Your task to perform on an android device: turn on location history Image 0: 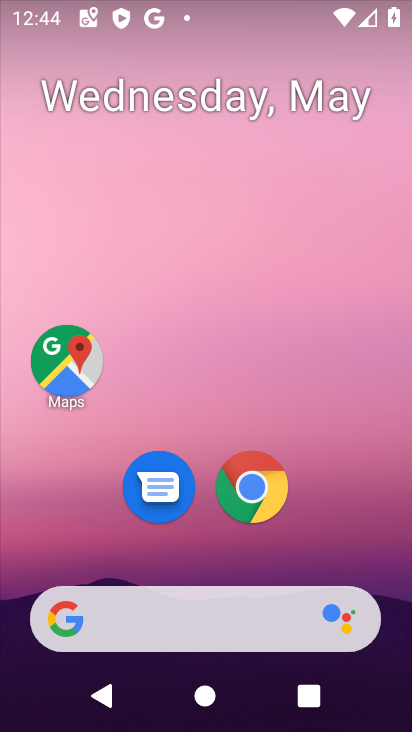
Step 0: drag from (195, 563) to (258, 93)
Your task to perform on an android device: turn on location history Image 1: 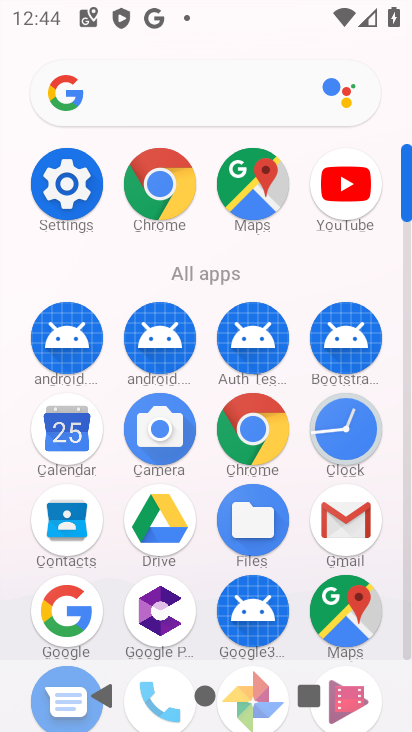
Step 1: click (91, 195)
Your task to perform on an android device: turn on location history Image 2: 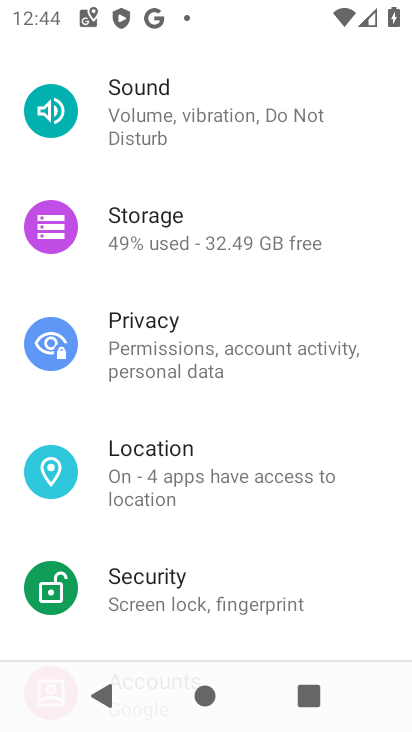
Step 2: click (140, 456)
Your task to perform on an android device: turn on location history Image 3: 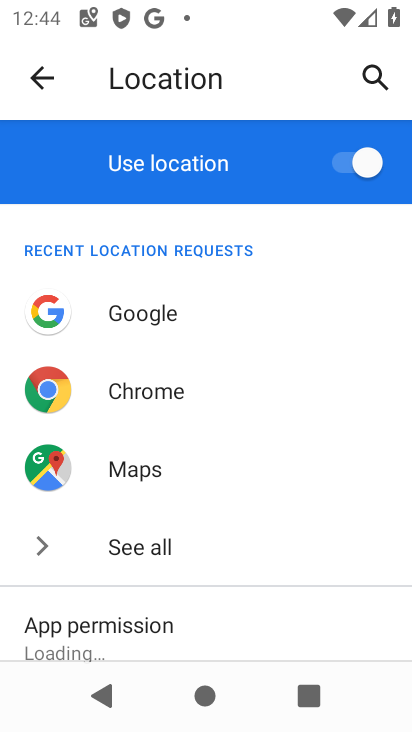
Step 3: drag from (171, 558) to (196, 345)
Your task to perform on an android device: turn on location history Image 4: 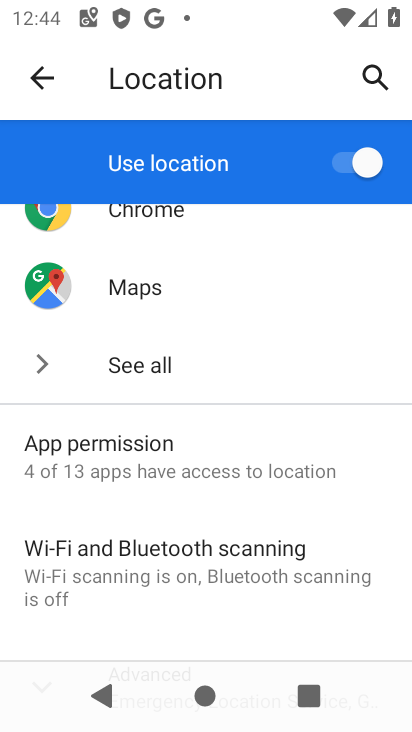
Step 4: drag from (172, 597) to (228, 324)
Your task to perform on an android device: turn on location history Image 5: 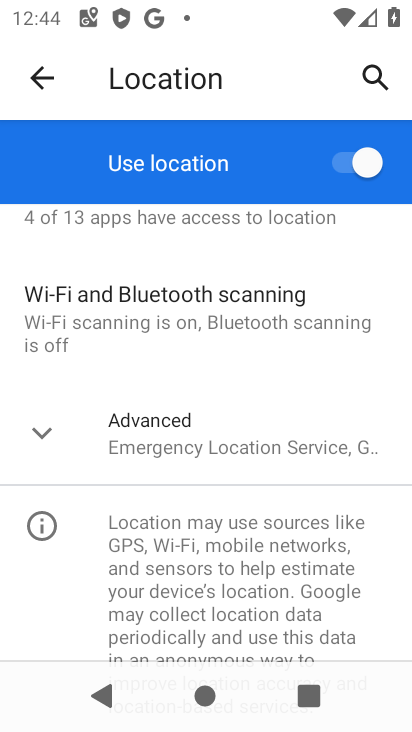
Step 5: click (187, 430)
Your task to perform on an android device: turn on location history Image 6: 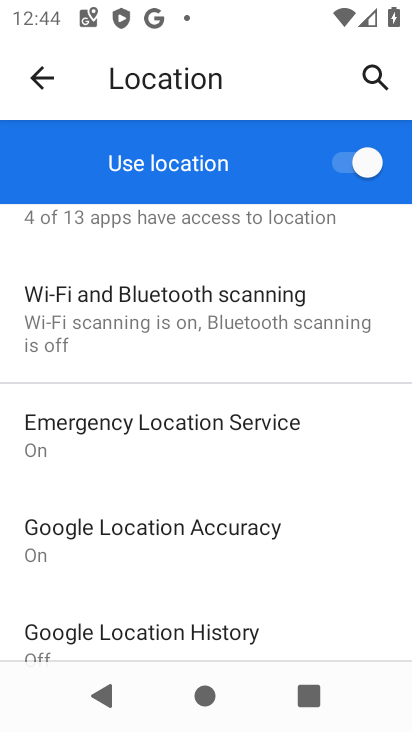
Step 6: drag from (185, 619) to (219, 415)
Your task to perform on an android device: turn on location history Image 7: 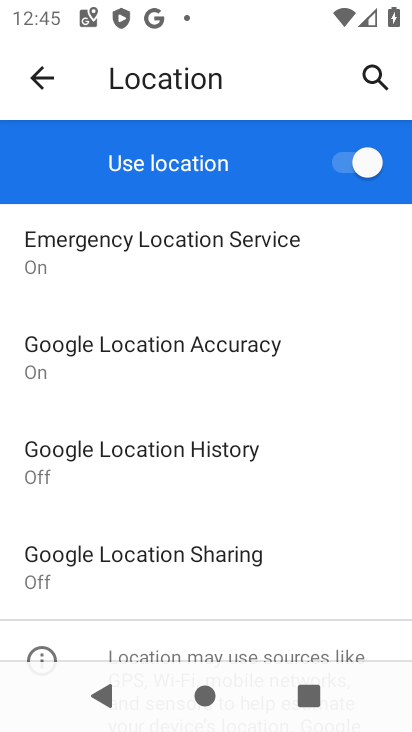
Step 7: click (178, 471)
Your task to perform on an android device: turn on location history Image 8: 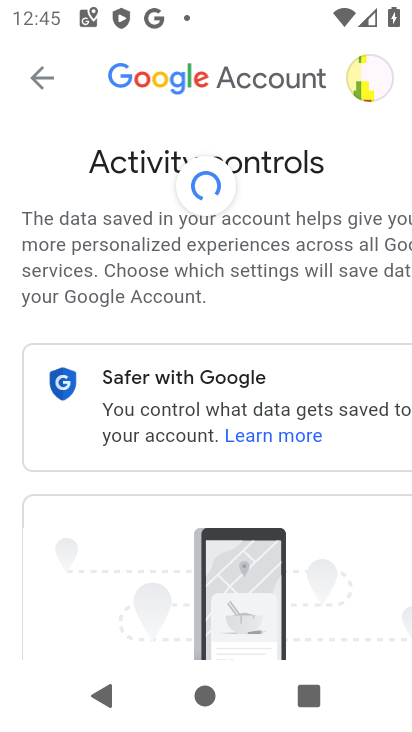
Step 8: drag from (240, 506) to (354, 62)
Your task to perform on an android device: turn on location history Image 9: 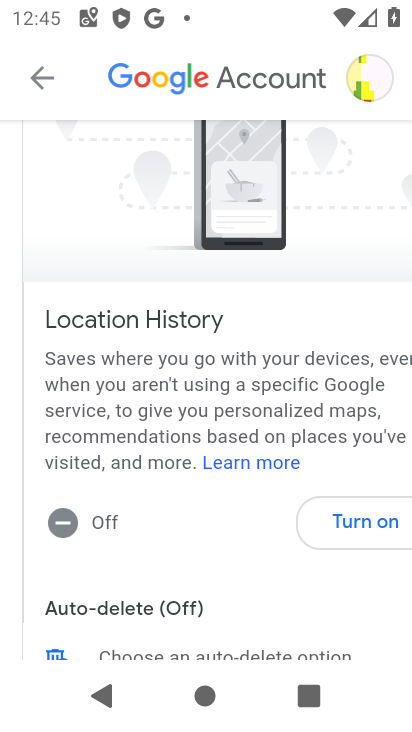
Step 9: drag from (279, 501) to (309, 286)
Your task to perform on an android device: turn on location history Image 10: 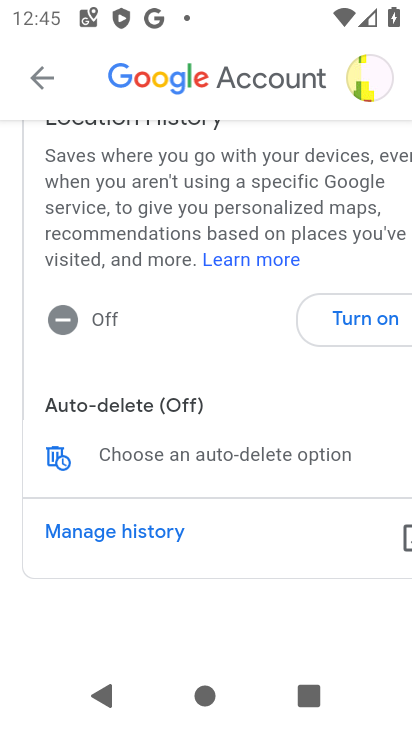
Step 10: click (350, 317)
Your task to perform on an android device: turn on location history Image 11: 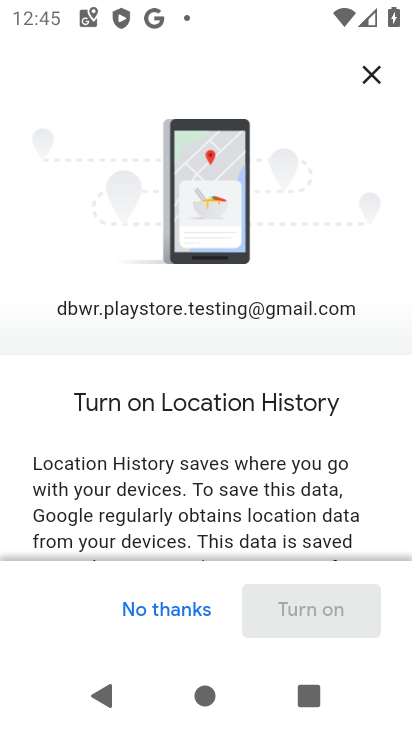
Step 11: drag from (257, 481) to (321, 80)
Your task to perform on an android device: turn on location history Image 12: 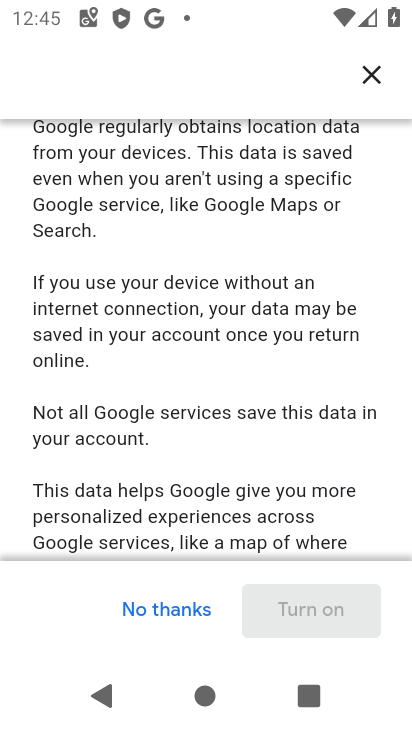
Step 12: drag from (223, 477) to (356, 0)
Your task to perform on an android device: turn on location history Image 13: 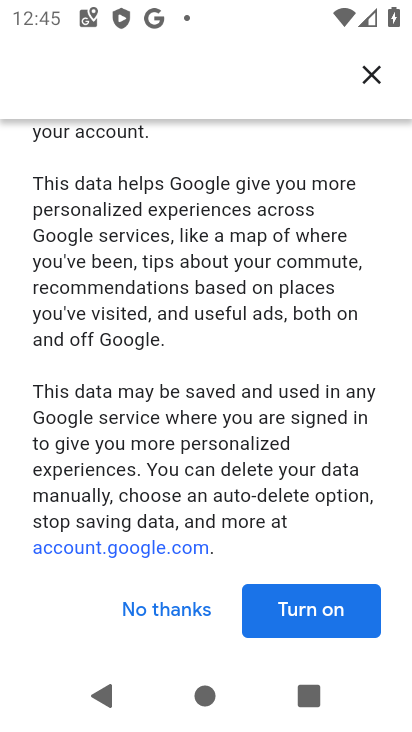
Step 13: drag from (245, 491) to (349, 16)
Your task to perform on an android device: turn on location history Image 14: 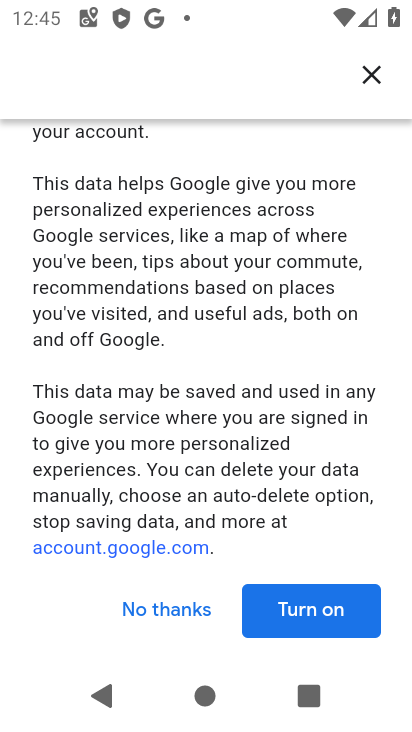
Step 14: click (305, 622)
Your task to perform on an android device: turn on location history Image 15: 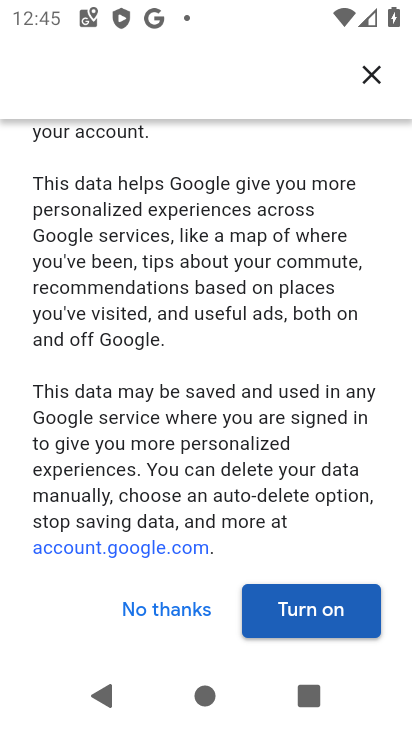
Step 15: click (303, 622)
Your task to perform on an android device: turn on location history Image 16: 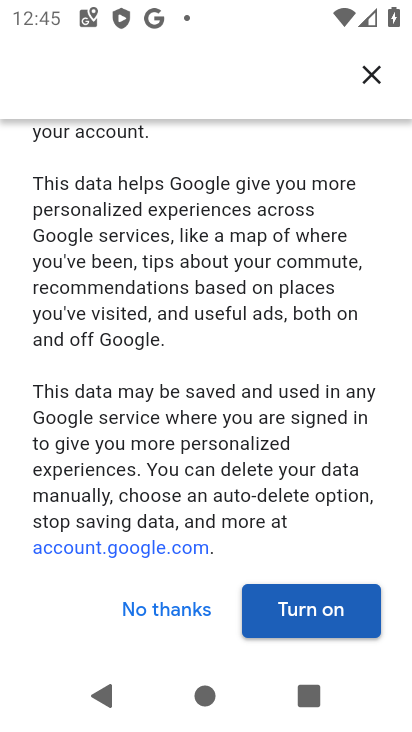
Step 16: click (303, 617)
Your task to perform on an android device: turn on location history Image 17: 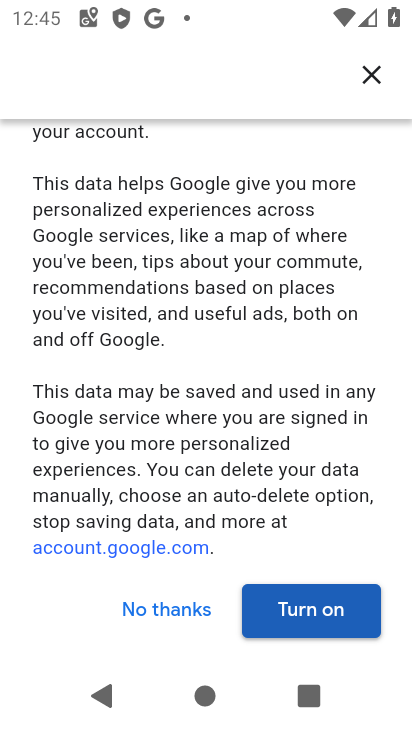
Step 17: click (304, 616)
Your task to perform on an android device: turn on location history Image 18: 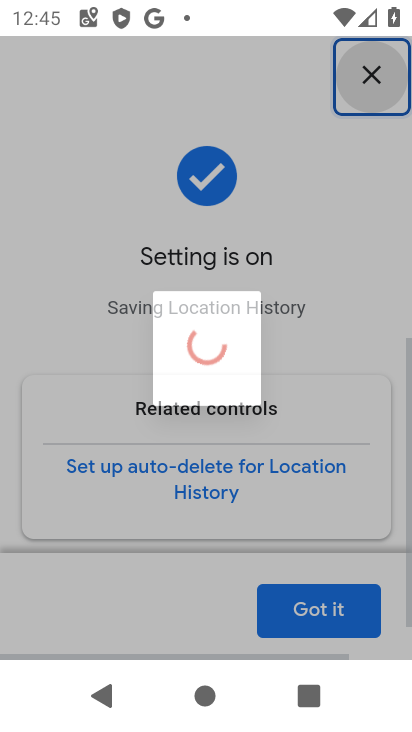
Step 18: click (304, 616)
Your task to perform on an android device: turn on location history Image 19: 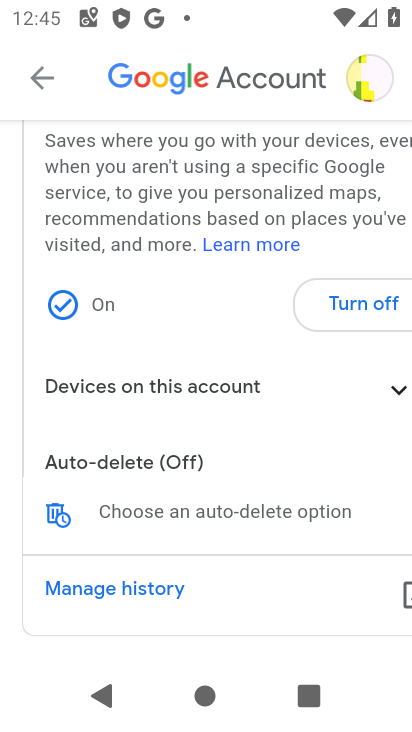
Step 19: task complete